Your task to perform on an android device: Do I have any events today? Image 0: 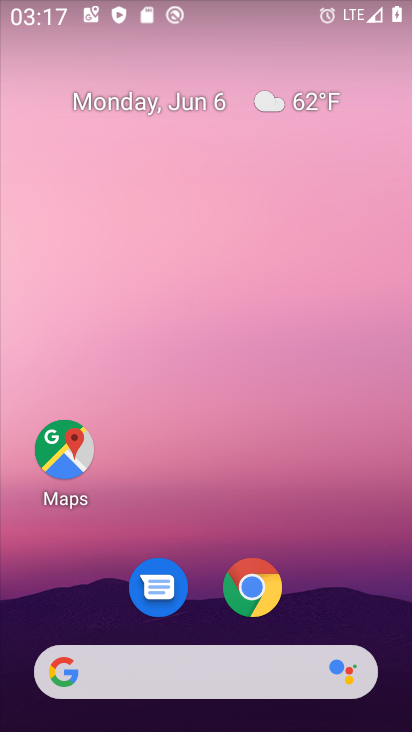
Step 0: drag from (348, 595) to (227, 0)
Your task to perform on an android device: Do I have any events today? Image 1: 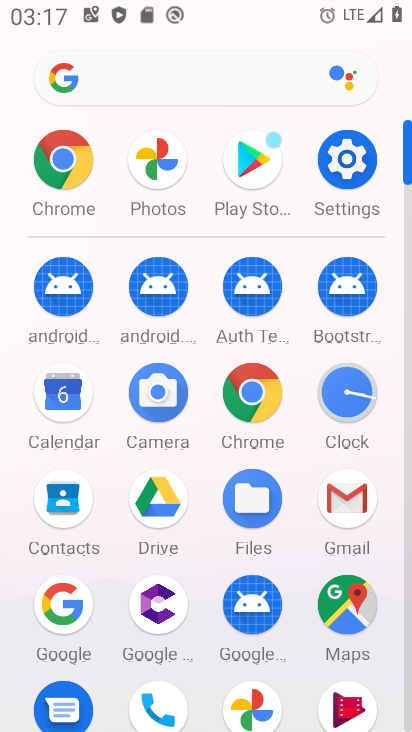
Step 1: drag from (13, 608) to (16, 203)
Your task to perform on an android device: Do I have any events today? Image 2: 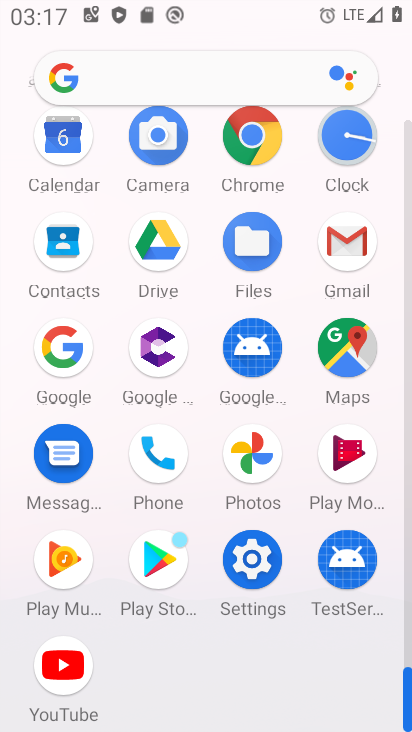
Step 2: drag from (26, 552) to (0, 265)
Your task to perform on an android device: Do I have any events today? Image 3: 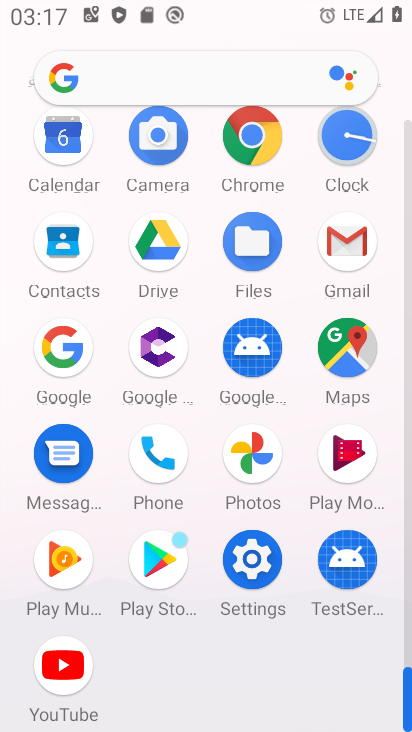
Step 3: click (250, 129)
Your task to perform on an android device: Do I have any events today? Image 4: 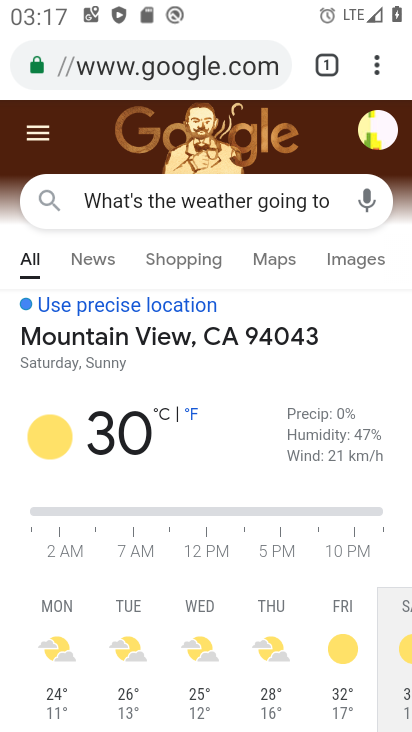
Step 4: press back button
Your task to perform on an android device: Do I have any events today? Image 5: 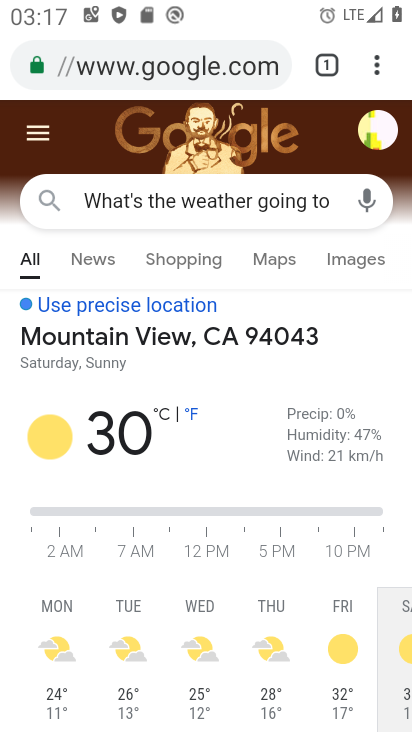
Step 5: press home button
Your task to perform on an android device: Do I have any events today? Image 6: 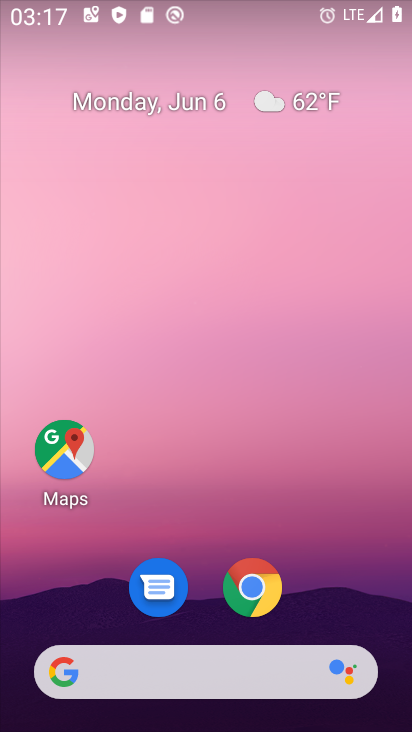
Step 6: drag from (346, 556) to (274, 26)
Your task to perform on an android device: Do I have any events today? Image 7: 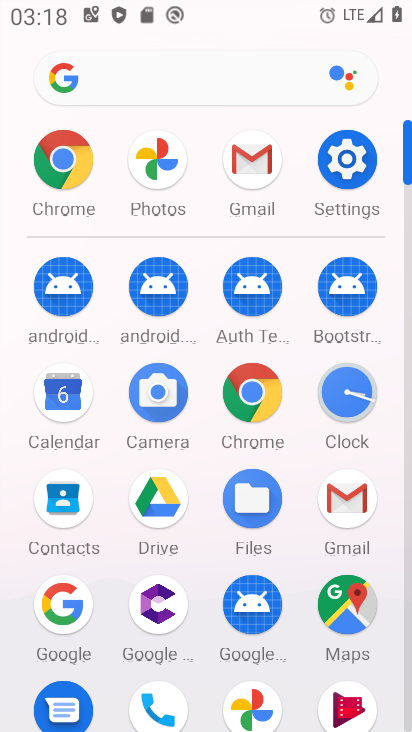
Step 7: click (63, 393)
Your task to perform on an android device: Do I have any events today? Image 8: 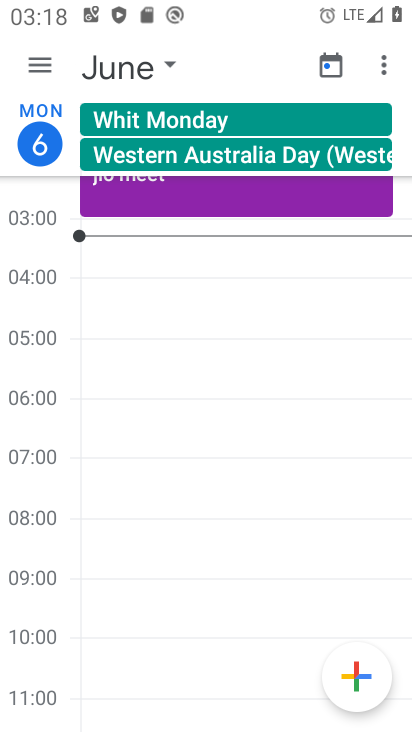
Step 8: click (334, 63)
Your task to perform on an android device: Do I have any events today? Image 9: 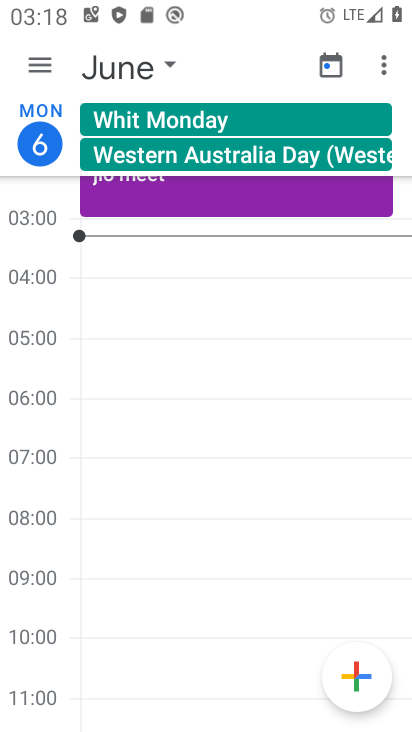
Step 9: click (334, 63)
Your task to perform on an android device: Do I have any events today? Image 10: 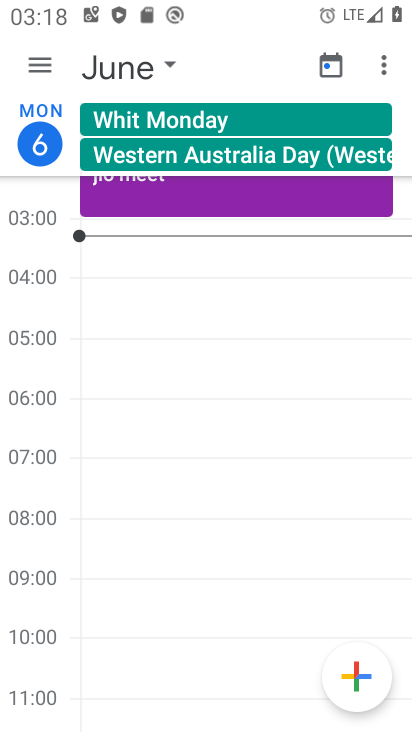
Step 10: click (329, 57)
Your task to perform on an android device: Do I have any events today? Image 11: 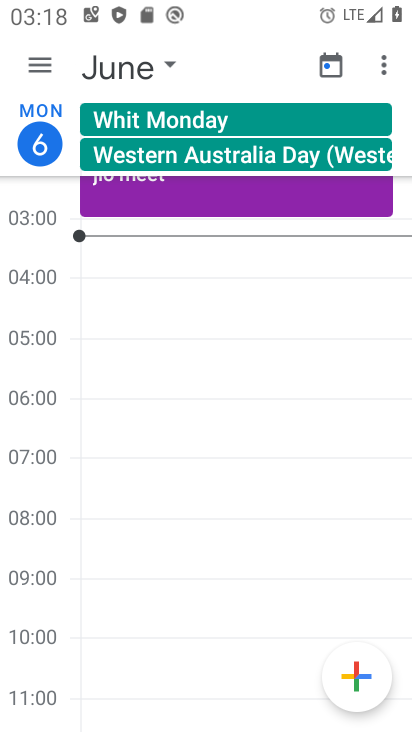
Step 11: task complete